Your task to perform on an android device: Open display settings Image 0: 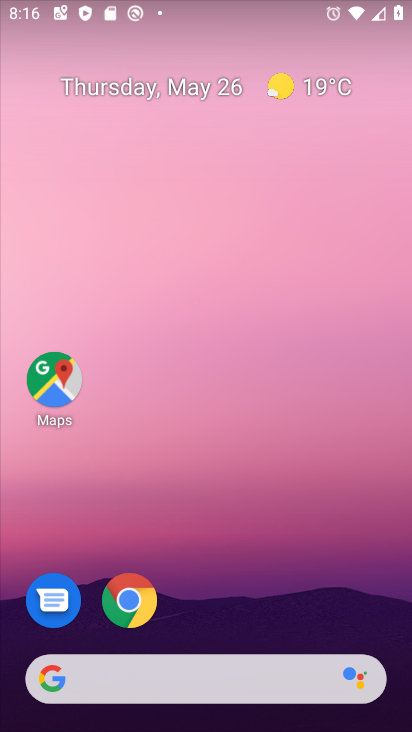
Step 0: press home button
Your task to perform on an android device: Open display settings Image 1: 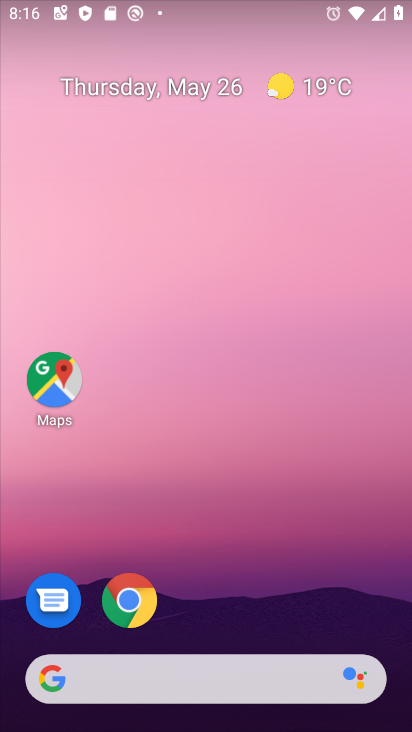
Step 1: press home button
Your task to perform on an android device: Open display settings Image 2: 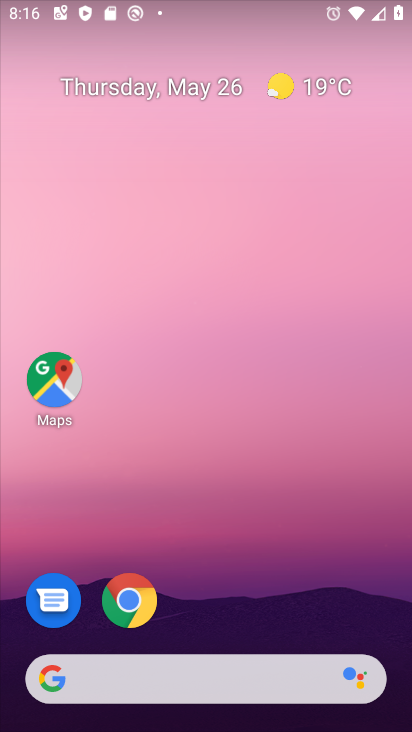
Step 2: drag from (230, 621) to (218, 9)
Your task to perform on an android device: Open display settings Image 3: 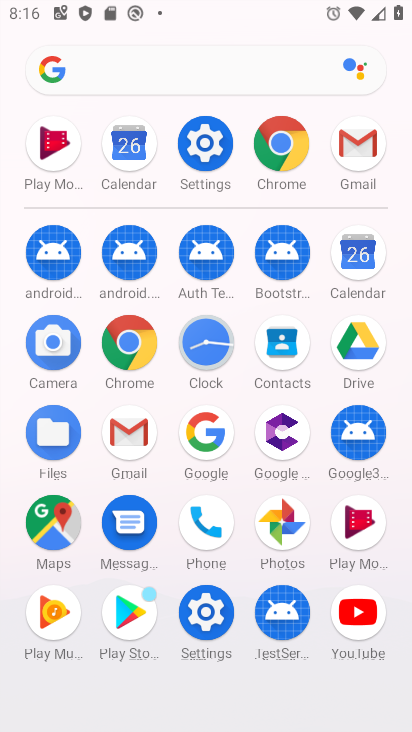
Step 3: click (209, 156)
Your task to perform on an android device: Open display settings Image 4: 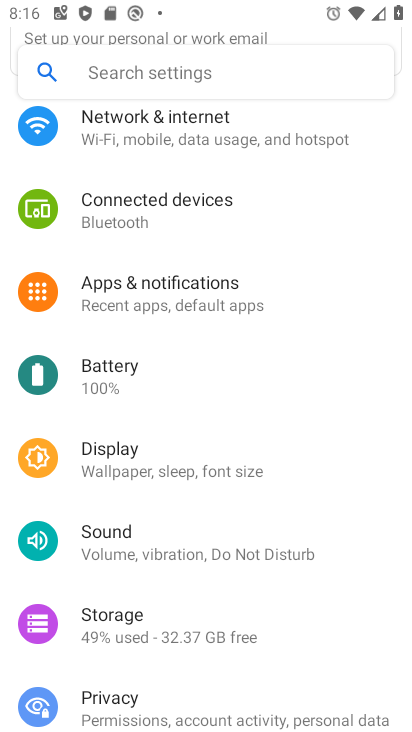
Step 4: click (105, 455)
Your task to perform on an android device: Open display settings Image 5: 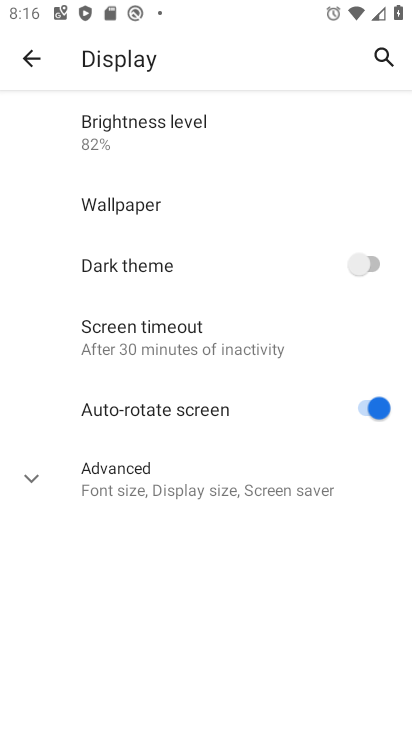
Step 5: task complete